Your task to perform on an android device: Open privacy settings Image 0: 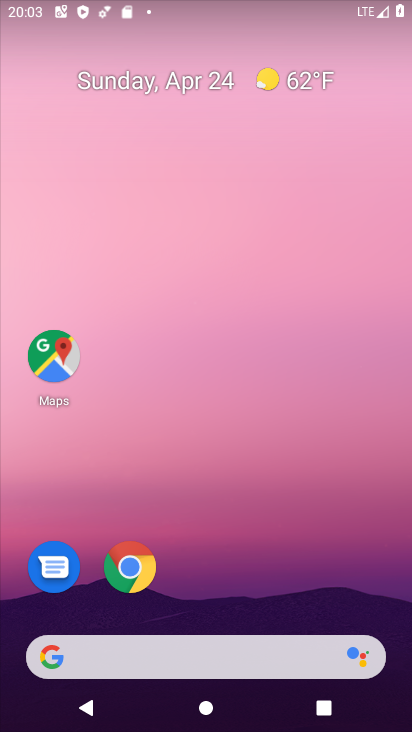
Step 0: drag from (242, 522) to (240, 44)
Your task to perform on an android device: Open privacy settings Image 1: 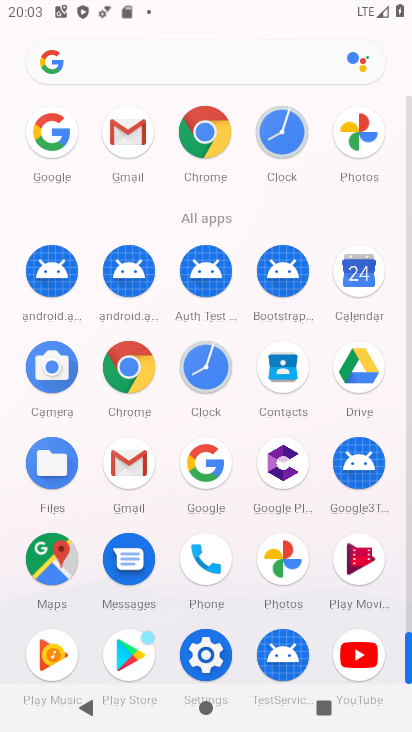
Step 1: click (205, 655)
Your task to perform on an android device: Open privacy settings Image 2: 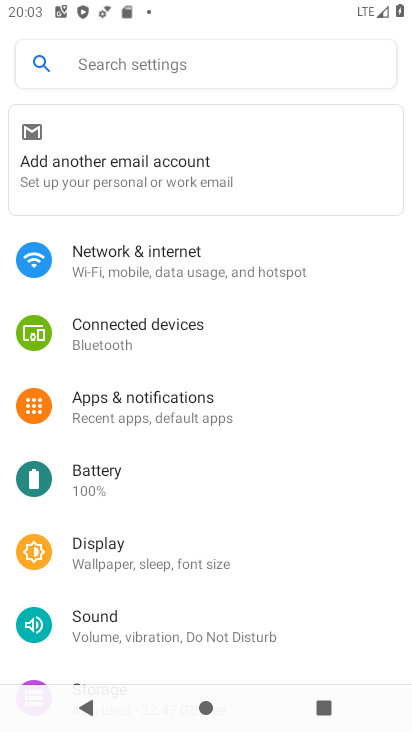
Step 2: drag from (175, 536) to (221, 443)
Your task to perform on an android device: Open privacy settings Image 3: 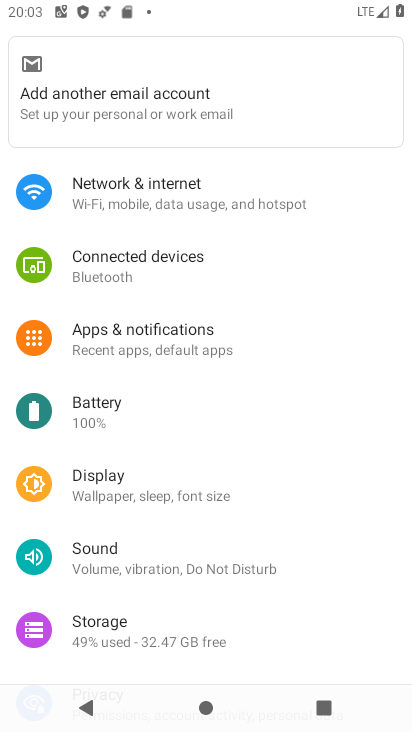
Step 3: drag from (164, 539) to (187, 469)
Your task to perform on an android device: Open privacy settings Image 4: 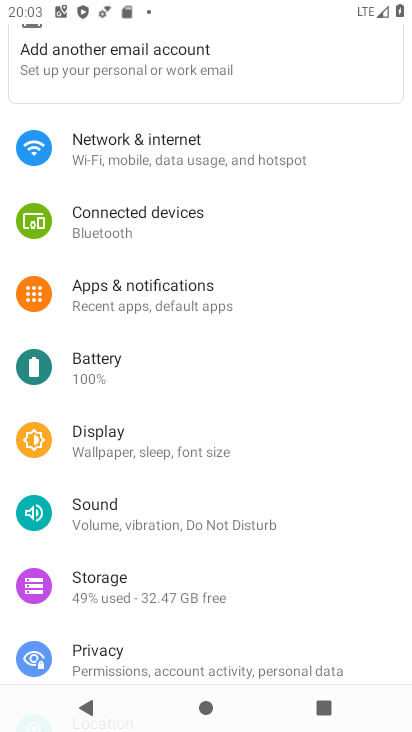
Step 4: drag from (131, 554) to (170, 471)
Your task to perform on an android device: Open privacy settings Image 5: 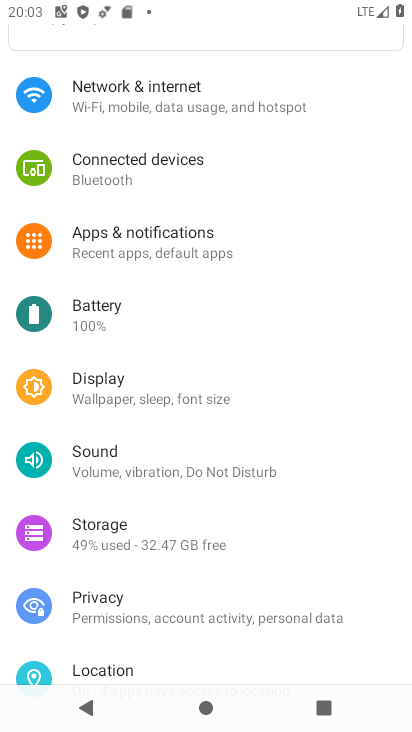
Step 5: click (113, 603)
Your task to perform on an android device: Open privacy settings Image 6: 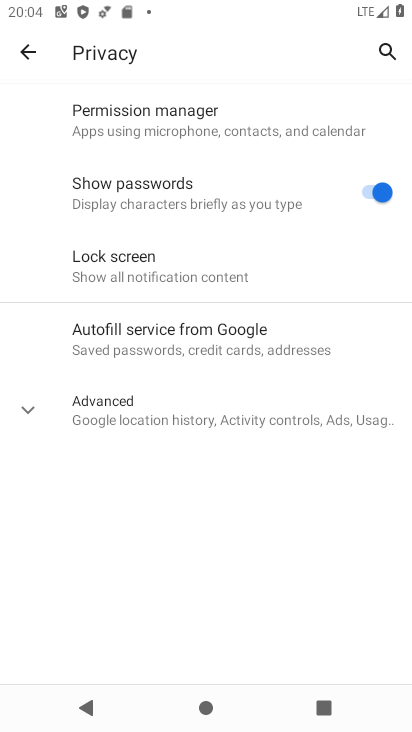
Step 6: task complete